Your task to perform on an android device: turn on improve location accuracy Image 0: 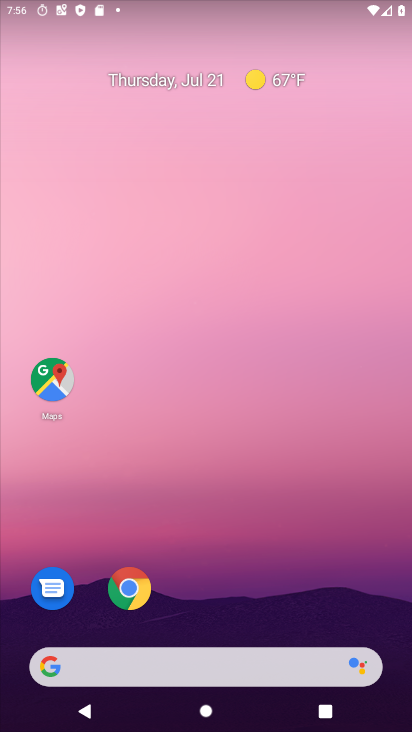
Step 0: drag from (173, 584) to (269, 154)
Your task to perform on an android device: turn on improve location accuracy Image 1: 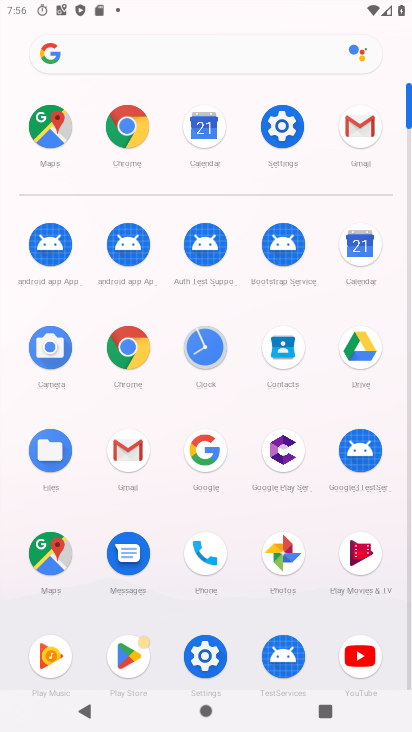
Step 1: click (189, 659)
Your task to perform on an android device: turn on improve location accuracy Image 2: 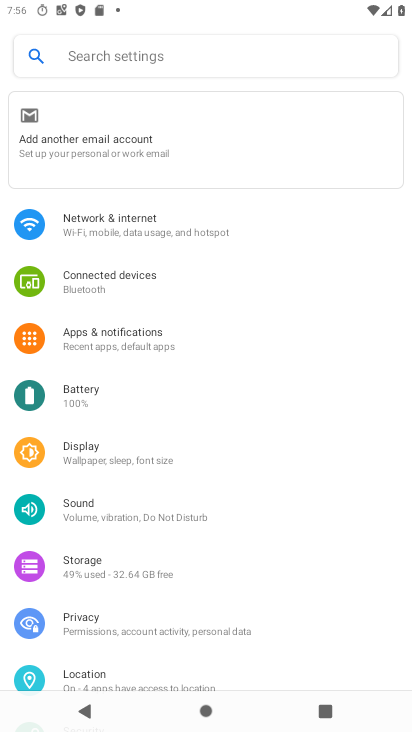
Step 2: click (105, 680)
Your task to perform on an android device: turn on improve location accuracy Image 3: 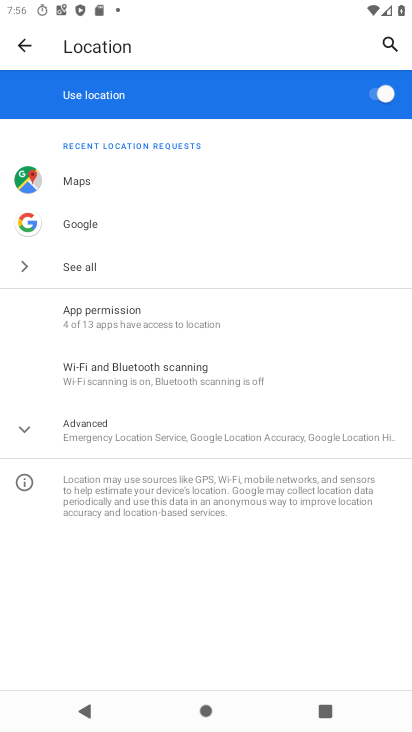
Step 3: click (200, 436)
Your task to perform on an android device: turn on improve location accuracy Image 4: 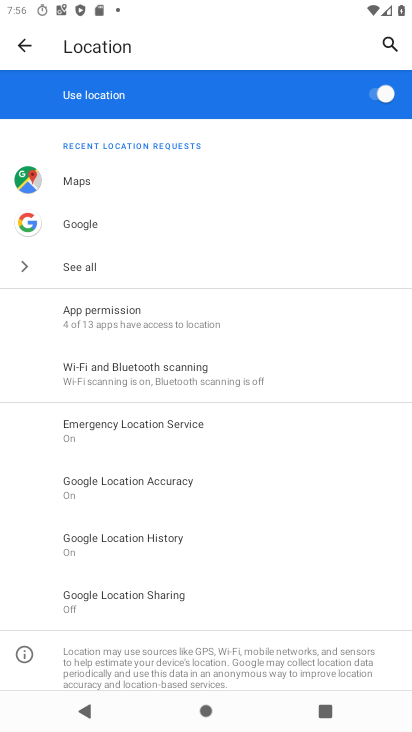
Step 4: click (164, 487)
Your task to perform on an android device: turn on improve location accuracy Image 5: 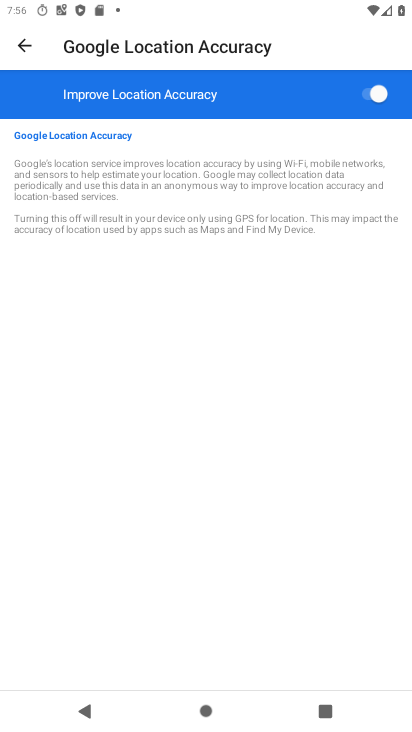
Step 5: task complete